Your task to perform on an android device: refresh tabs in the chrome app Image 0: 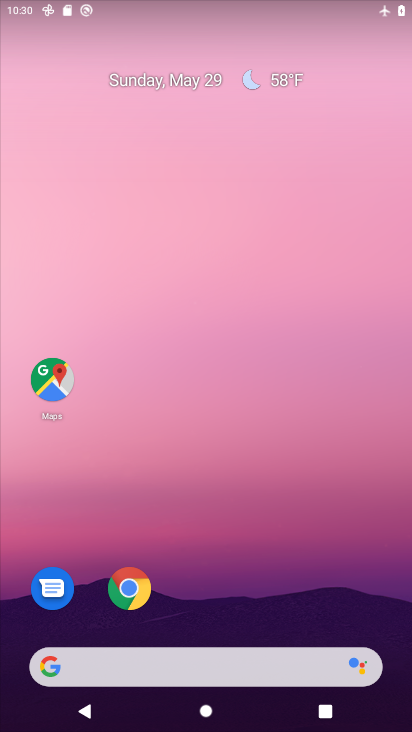
Step 0: drag from (264, 683) to (273, 125)
Your task to perform on an android device: refresh tabs in the chrome app Image 1: 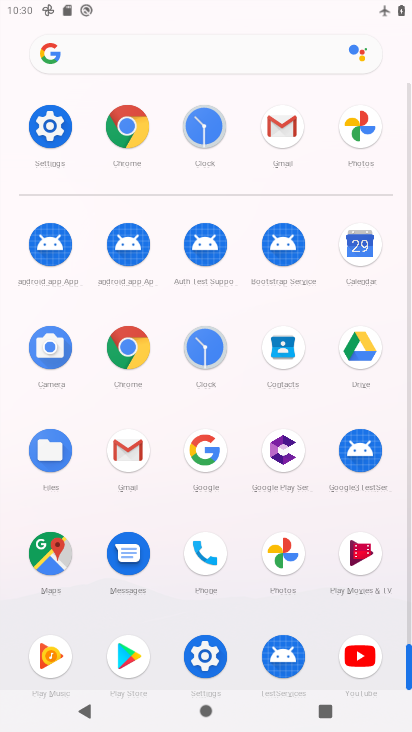
Step 1: click (116, 130)
Your task to perform on an android device: refresh tabs in the chrome app Image 2: 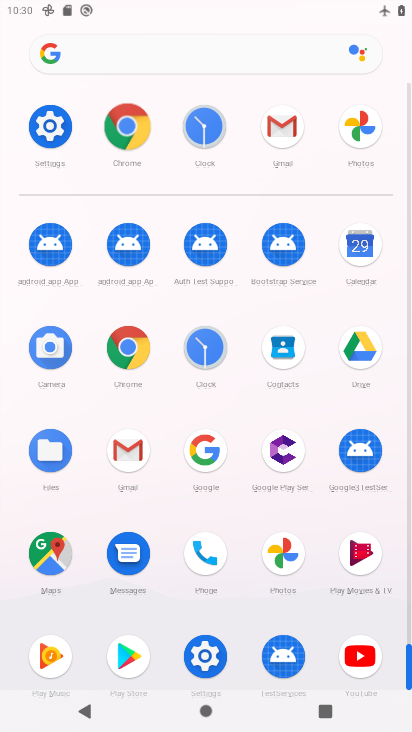
Step 2: click (131, 123)
Your task to perform on an android device: refresh tabs in the chrome app Image 3: 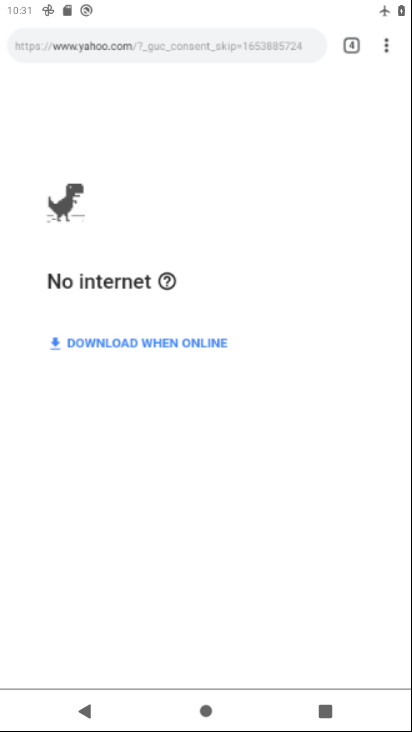
Step 3: click (126, 128)
Your task to perform on an android device: refresh tabs in the chrome app Image 4: 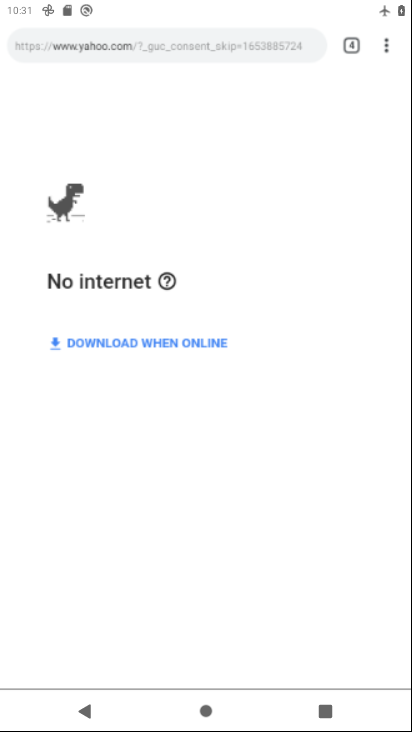
Step 4: click (126, 128)
Your task to perform on an android device: refresh tabs in the chrome app Image 5: 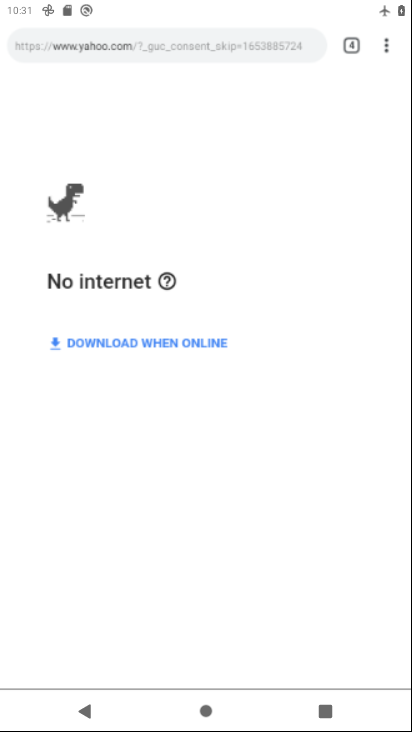
Step 5: click (123, 127)
Your task to perform on an android device: refresh tabs in the chrome app Image 6: 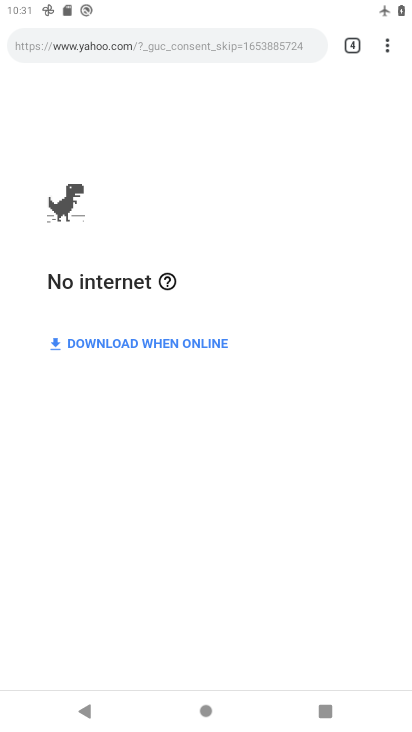
Step 6: click (381, 47)
Your task to perform on an android device: refresh tabs in the chrome app Image 7: 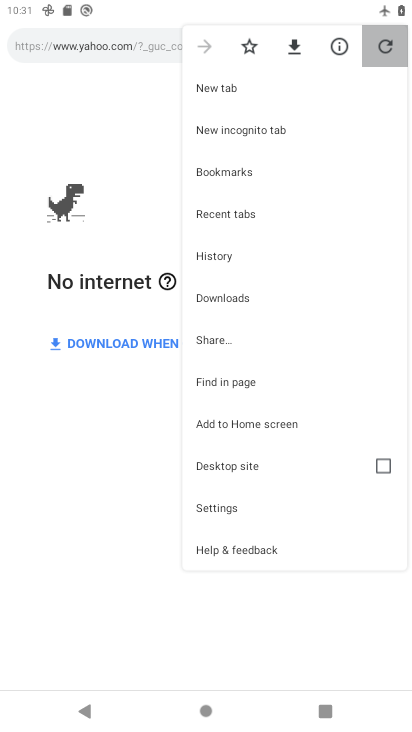
Step 7: click (392, 57)
Your task to perform on an android device: refresh tabs in the chrome app Image 8: 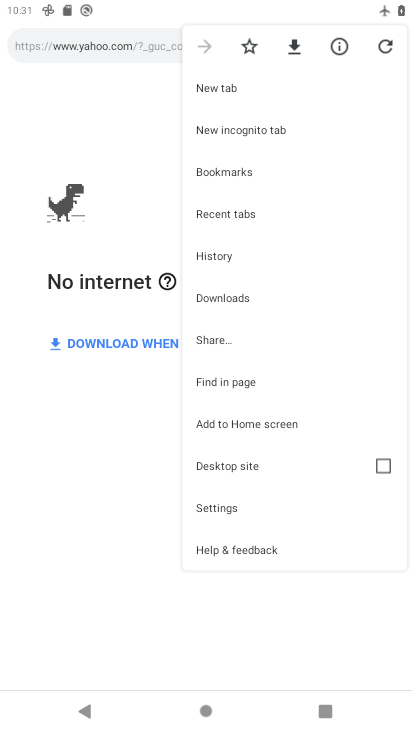
Step 8: task complete